Your task to perform on an android device: turn off airplane mode Image 0: 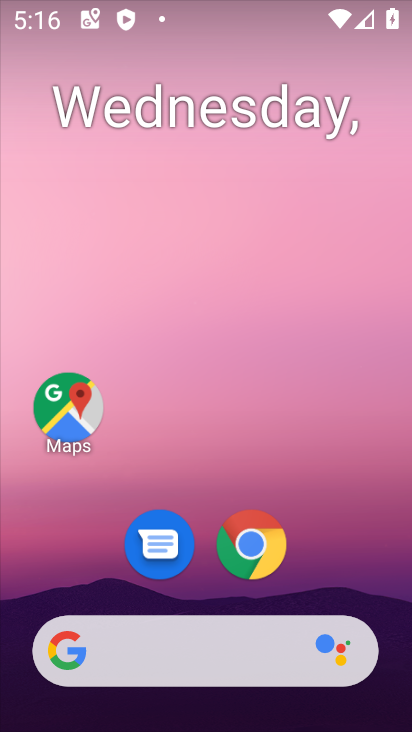
Step 0: drag from (402, 694) to (319, 122)
Your task to perform on an android device: turn off airplane mode Image 1: 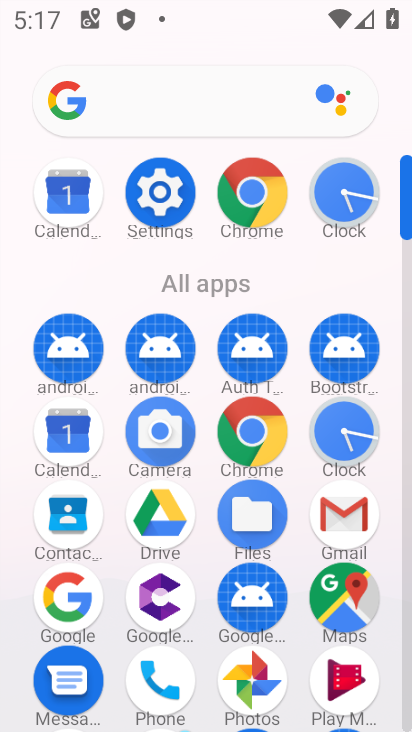
Step 1: click (163, 193)
Your task to perform on an android device: turn off airplane mode Image 2: 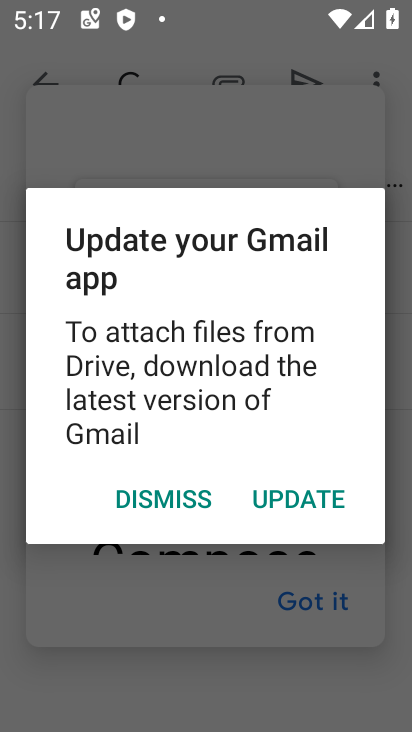
Step 2: click (257, 492)
Your task to perform on an android device: turn off airplane mode Image 3: 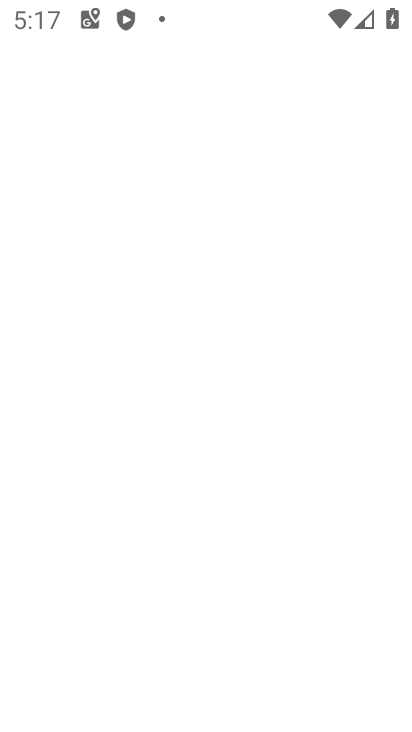
Step 3: press back button
Your task to perform on an android device: turn off airplane mode Image 4: 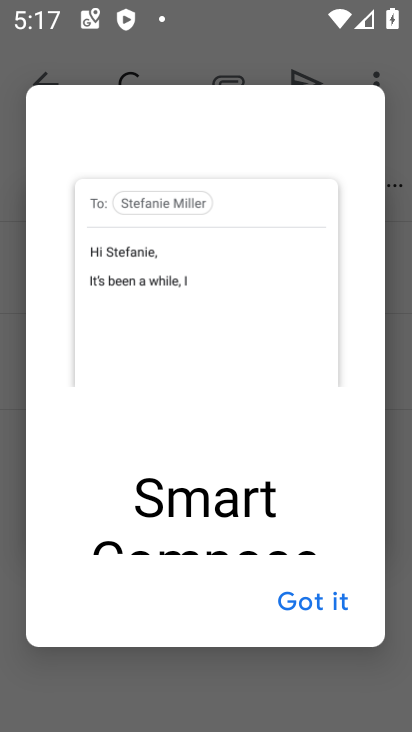
Step 4: press home button
Your task to perform on an android device: turn off airplane mode Image 5: 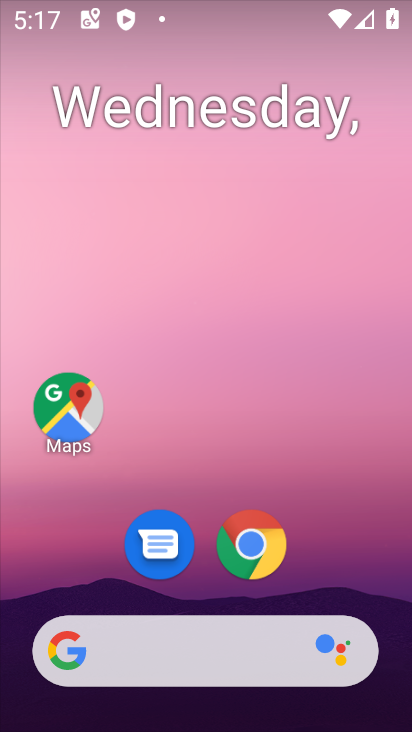
Step 5: drag from (392, 687) to (338, 83)
Your task to perform on an android device: turn off airplane mode Image 6: 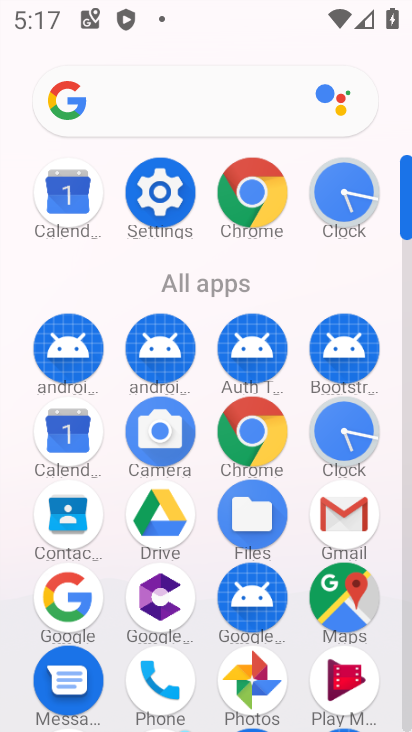
Step 6: click (142, 203)
Your task to perform on an android device: turn off airplane mode Image 7: 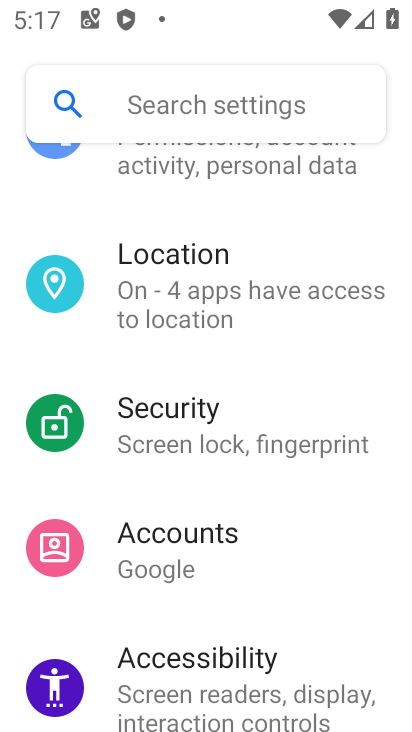
Step 7: drag from (282, 263) to (286, 649)
Your task to perform on an android device: turn off airplane mode Image 8: 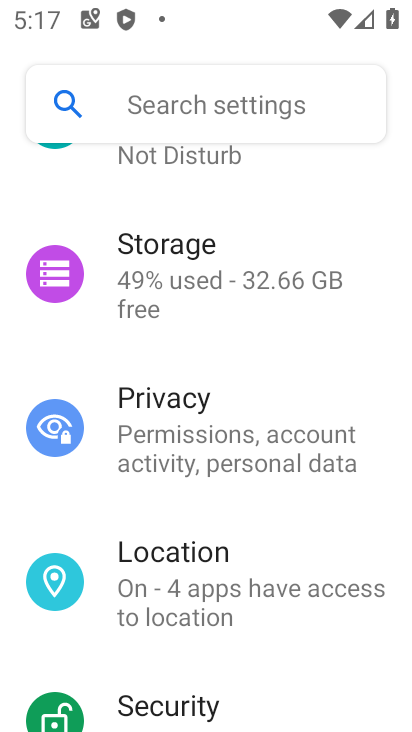
Step 8: drag from (319, 192) to (337, 609)
Your task to perform on an android device: turn off airplane mode Image 9: 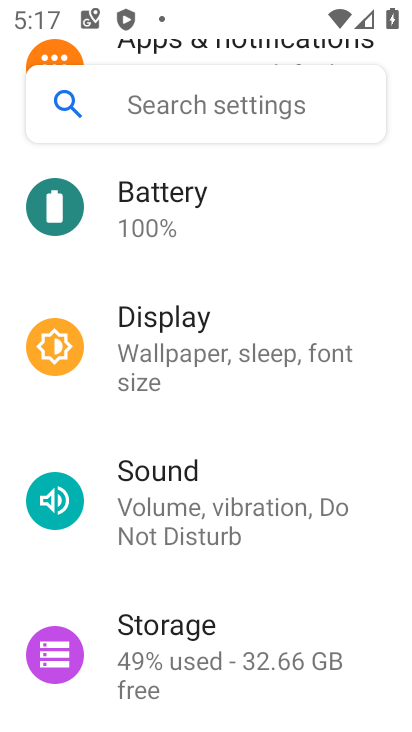
Step 9: drag from (298, 207) to (319, 655)
Your task to perform on an android device: turn off airplane mode Image 10: 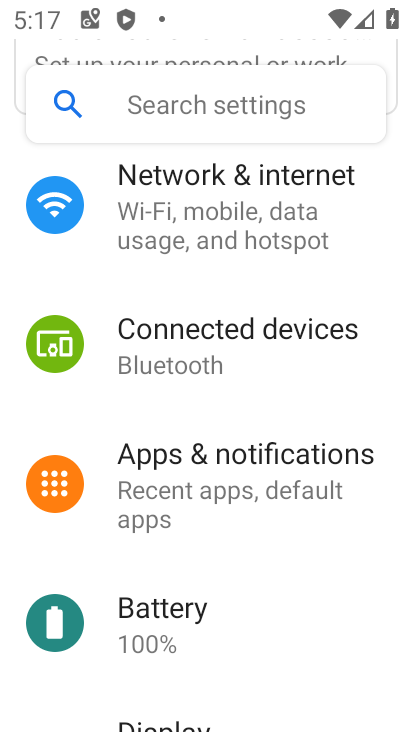
Step 10: click (243, 204)
Your task to perform on an android device: turn off airplane mode Image 11: 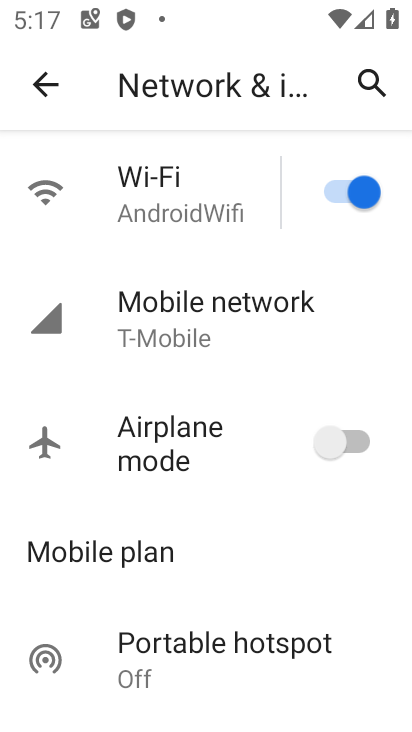
Step 11: task complete